Your task to perform on an android device: toggle javascript in the chrome app Image 0: 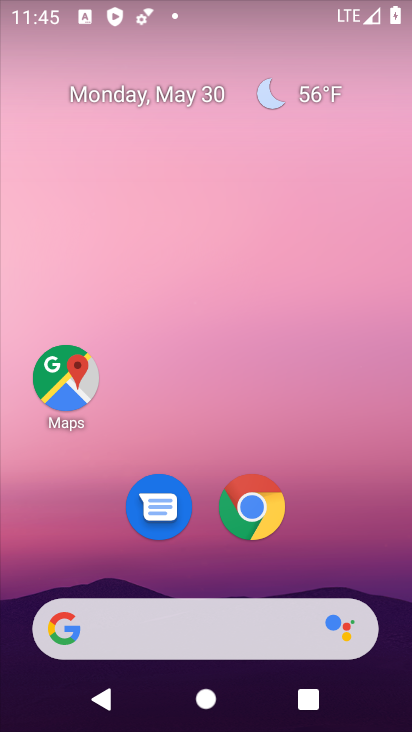
Step 0: drag from (388, 651) to (267, 30)
Your task to perform on an android device: toggle javascript in the chrome app Image 1: 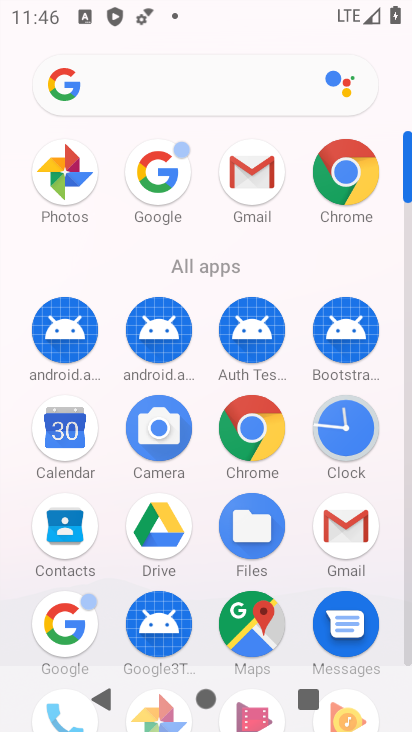
Step 1: click (352, 177)
Your task to perform on an android device: toggle javascript in the chrome app Image 2: 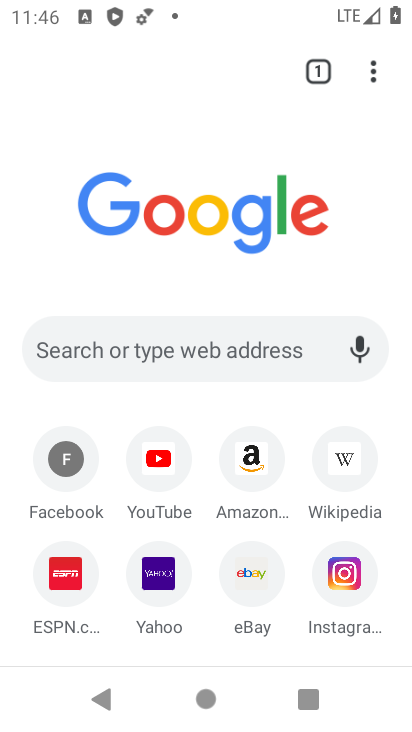
Step 2: click (377, 69)
Your task to perform on an android device: toggle javascript in the chrome app Image 3: 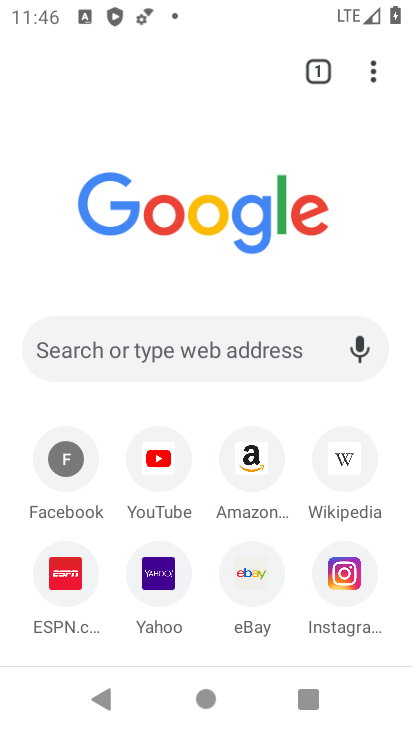
Step 3: click (368, 66)
Your task to perform on an android device: toggle javascript in the chrome app Image 4: 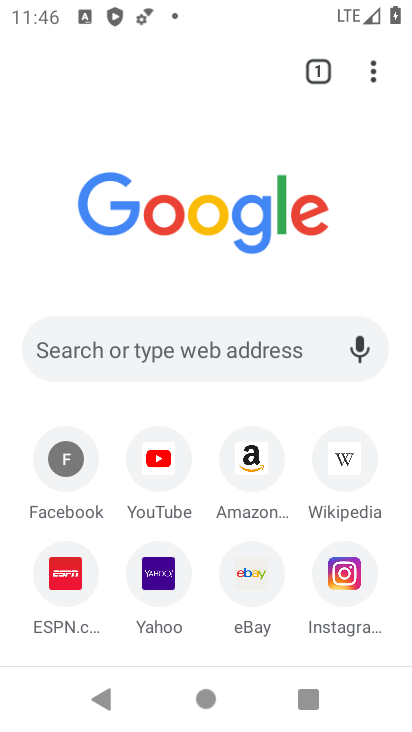
Step 4: click (385, 66)
Your task to perform on an android device: toggle javascript in the chrome app Image 5: 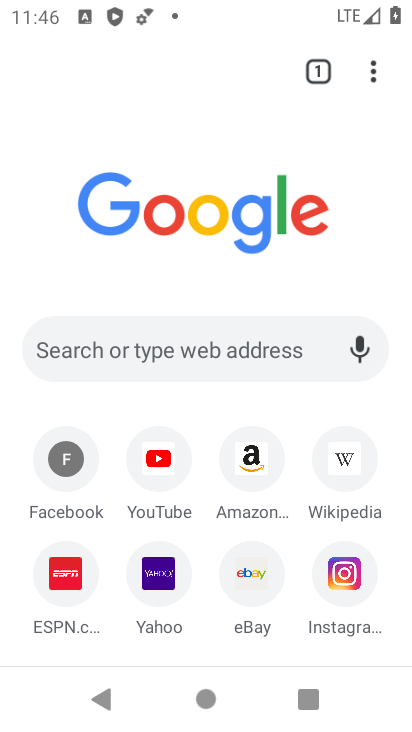
Step 5: click (376, 60)
Your task to perform on an android device: toggle javascript in the chrome app Image 6: 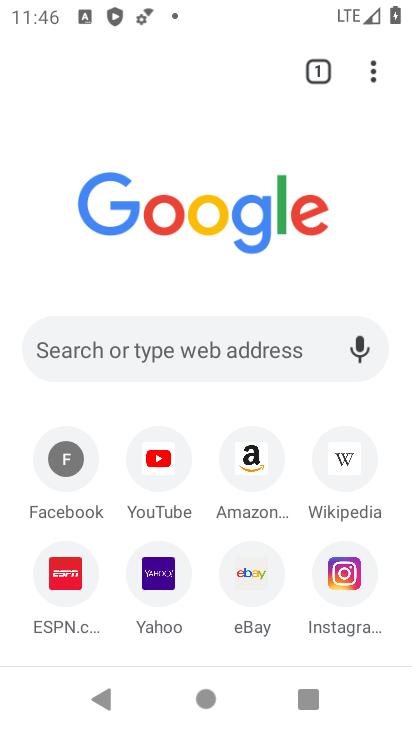
Step 6: click (379, 63)
Your task to perform on an android device: toggle javascript in the chrome app Image 7: 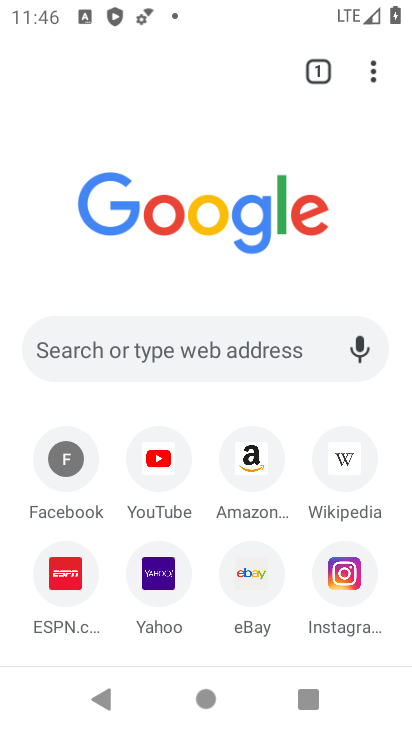
Step 7: click (378, 69)
Your task to perform on an android device: toggle javascript in the chrome app Image 8: 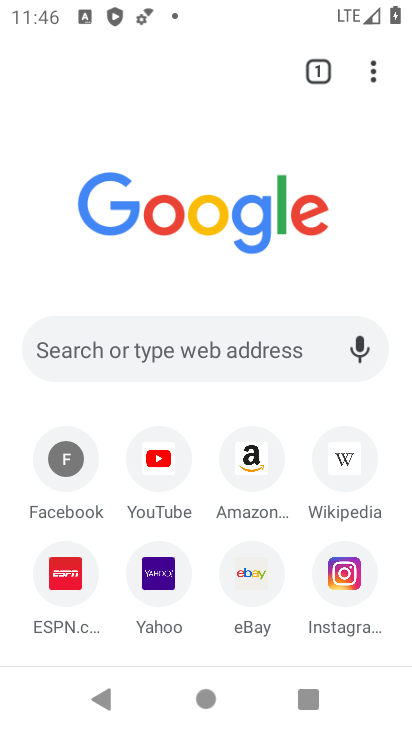
Step 8: click (372, 69)
Your task to perform on an android device: toggle javascript in the chrome app Image 9: 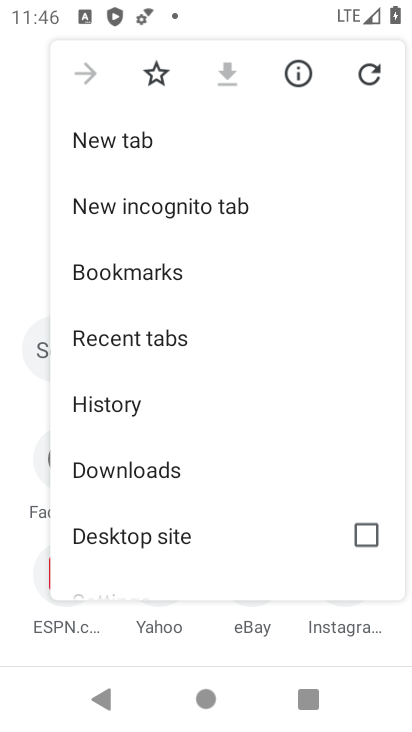
Step 9: drag from (91, 549) to (204, 120)
Your task to perform on an android device: toggle javascript in the chrome app Image 10: 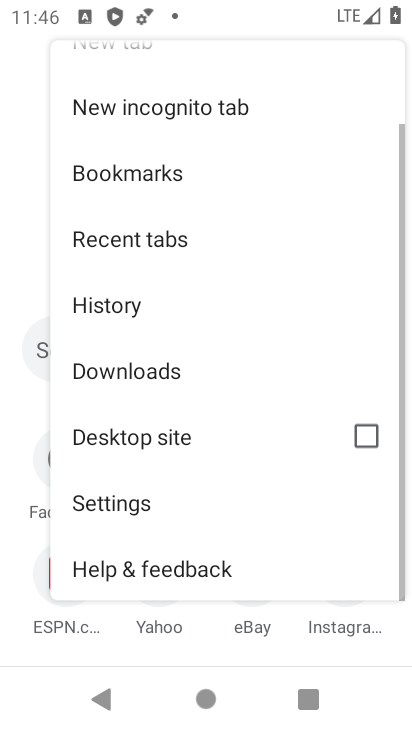
Step 10: click (139, 501)
Your task to perform on an android device: toggle javascript in the chrome app Image 11: 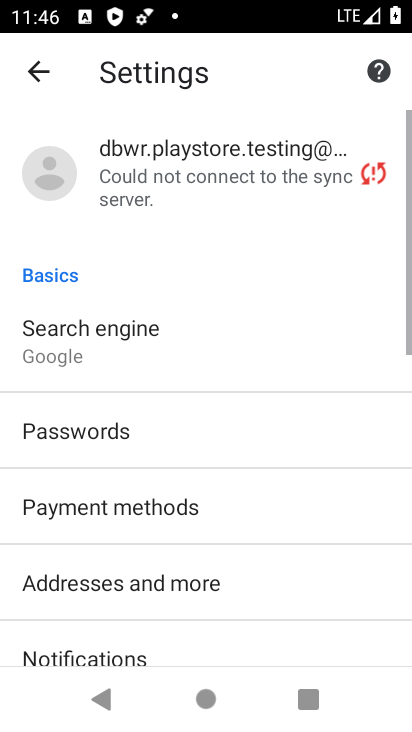
Step 11: drag from (104, 571) to (150, 107)
Your task to perform on an android device: toggle javascript in the chrome app Image 12: 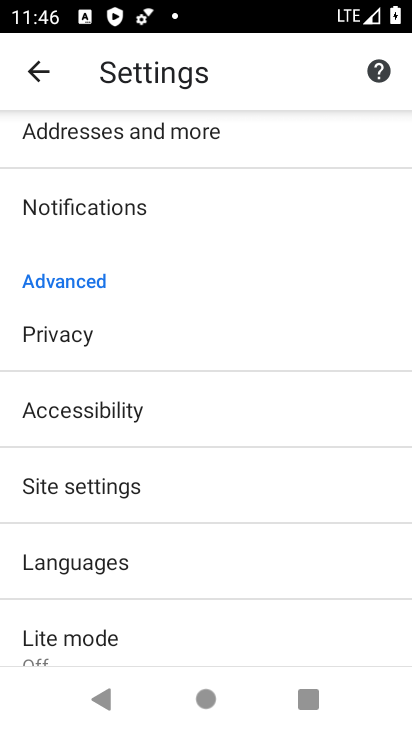
Step 12: click (124, 480)
Your task to perform on an android device: toggle javascript in the chrome app Image 13: 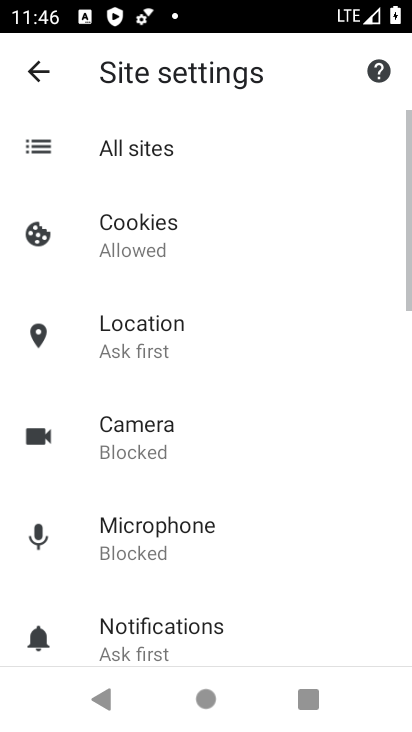
Step 13: drag from (180, 605) to (212, 195)
Your task to perform on an android device: toggle javascript in the chrome app Image 14: 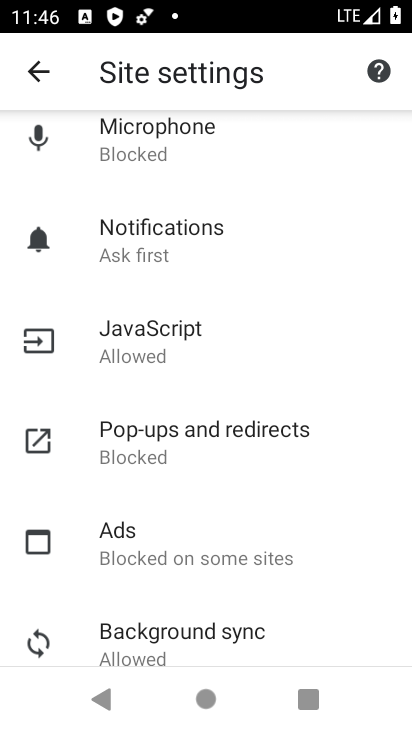
Step 14: click (164, 340)
Your task to perform on an android device: toggle javascript in the chrome app Image 15: 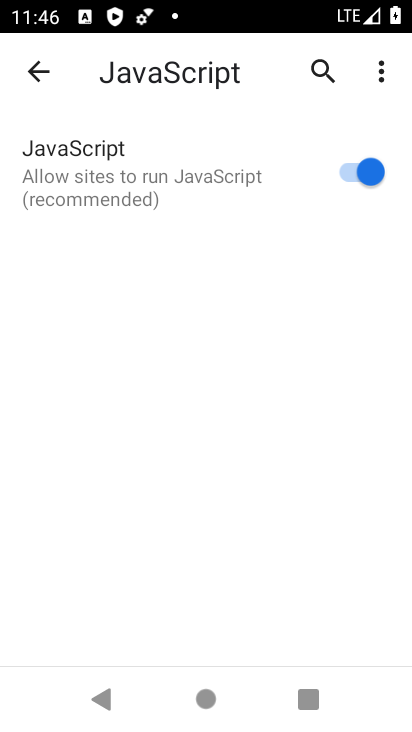
Step 15: click (339, 156)
Your task to perform on an android device: toggle javascript in the chrome app Image 16: 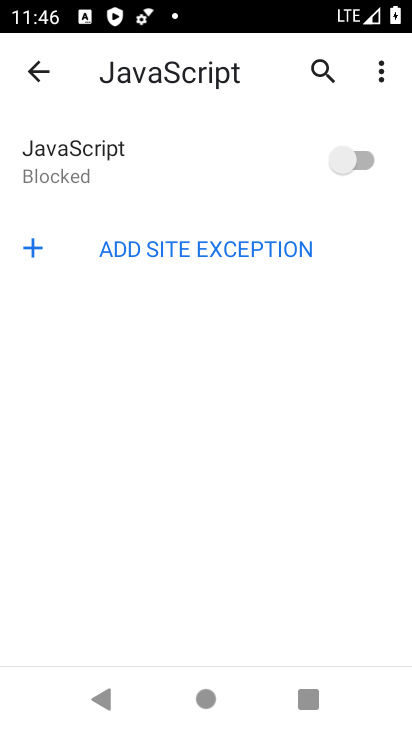
Step 16: task complete